Your task to perform on an android device: open chrome privacy settings Image 0: 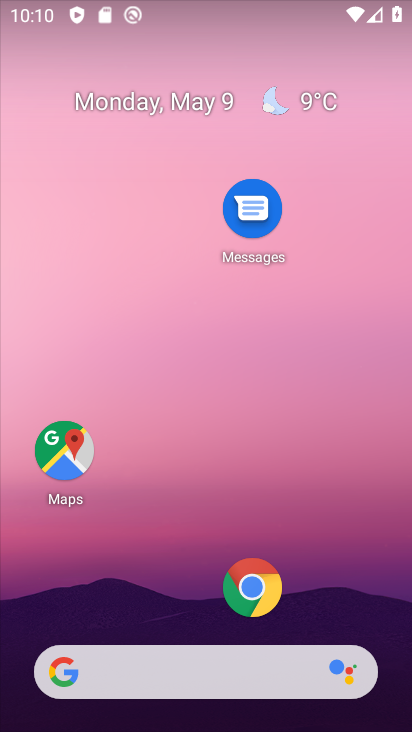
Step 0: click (250, 593)
Your task to perform on an android device: open chrome privacy settings Image 1: 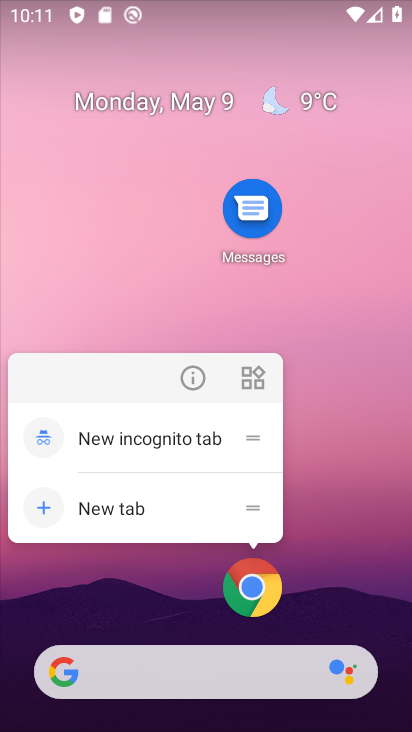
Step 1: click (191, 379)
Your task to perform on an android device: open chrome privacy settings Image 2: 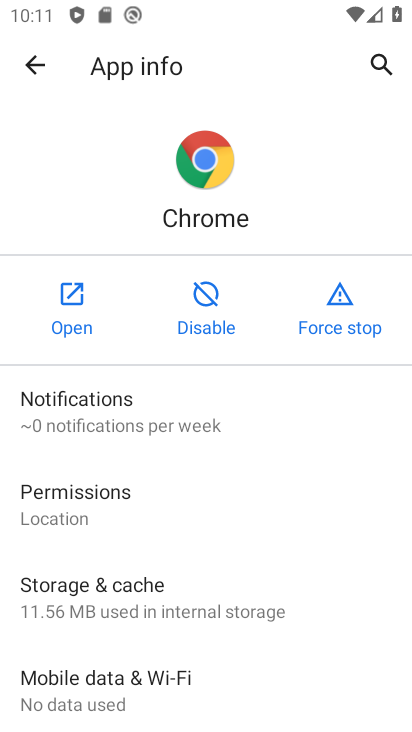
Step 2: click (70, 283)
Your task to perform on an android device: open chrome privacy settings Image 3: 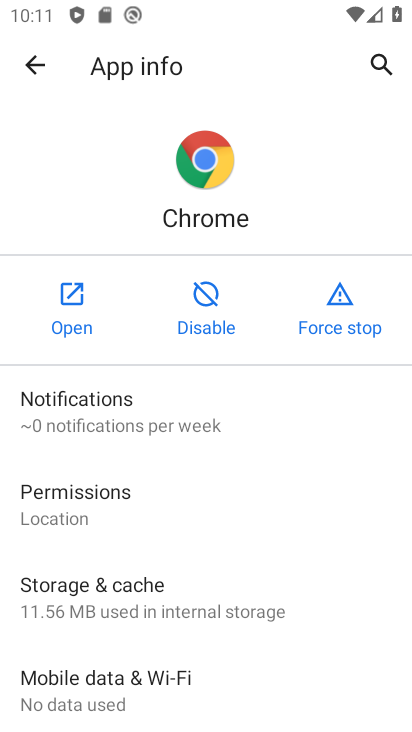
Step 3: click (69, 280)
Your task to perform on an android device: open chrome privacy settings Image 4: 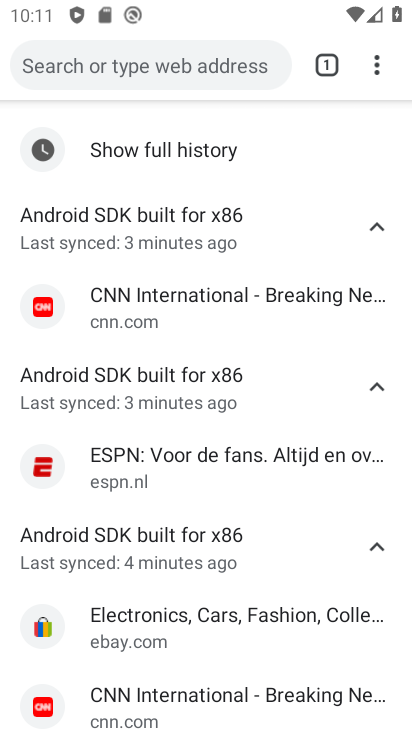
Step 4: click (375, 73)
Your task to perform on an android device: open chrome privacy settings Image 5: 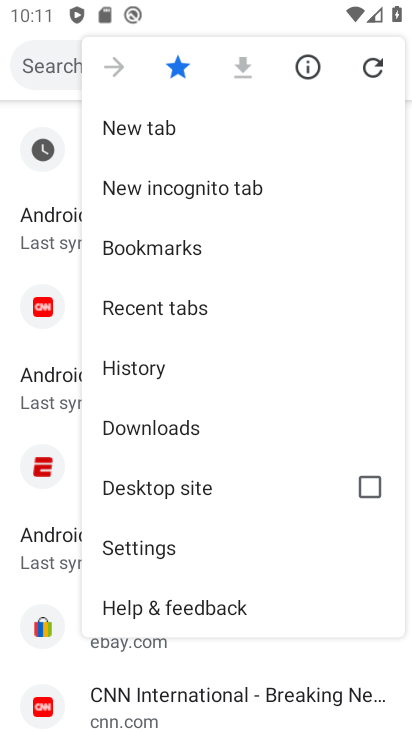
Step 5: drag from (173, 573) to (212, 147)
Your task to perform on an android device: open chrome privacy settings Image 6: 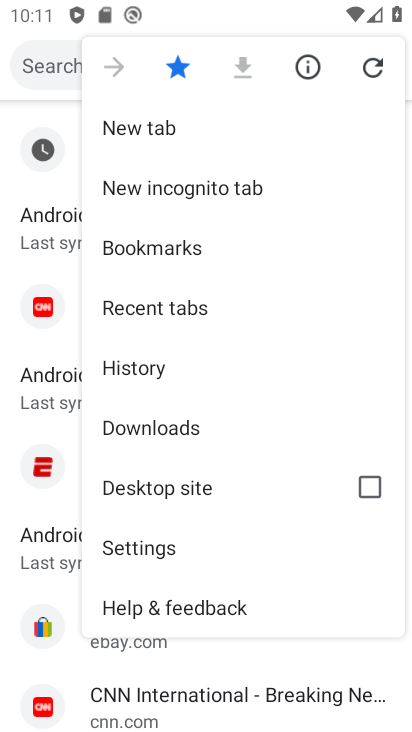
Step 6: click (164, 552)
Your task to perform on an android device: open chrome privacy settings Image 7: 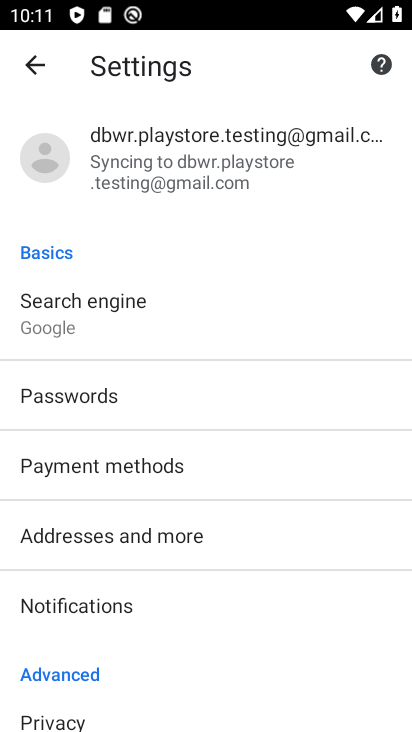
Step 7: drag from (228, 644) to (264, 216)
Your task to perform on an android device: open chrome privacy settings Image 8: 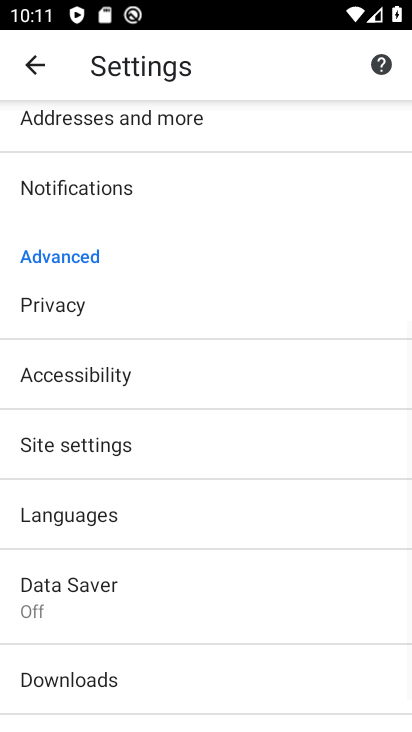
Step 8: click (135, 312)
Your task to perform on an android device: open chrome privacy settings Image 9: 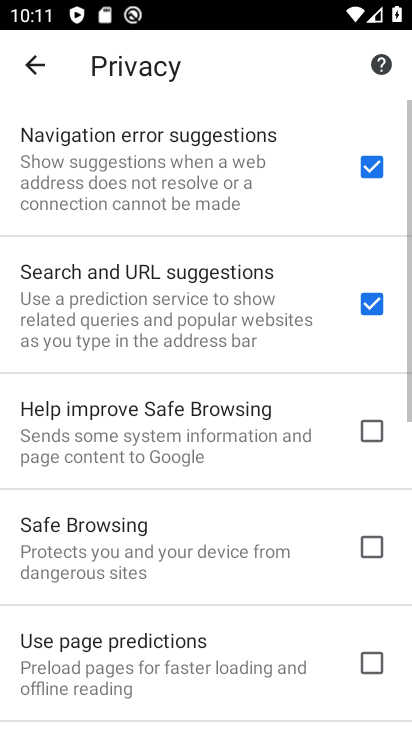
Step 9: drag from (201, 645) to (247, 264)
Your task to perform on an android device: open chrome privacy settings Image 10: 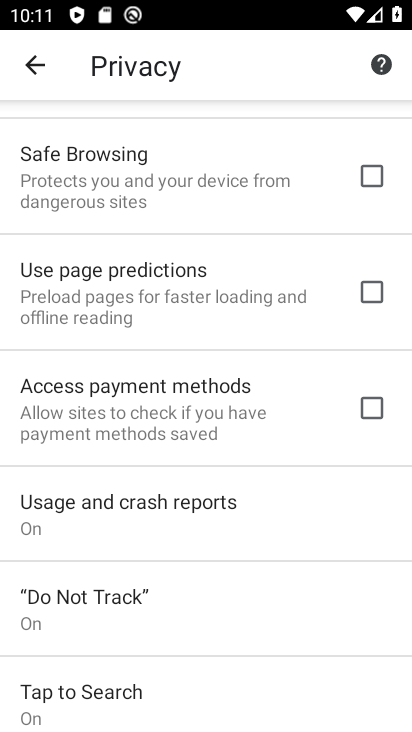
Step 10: drag from (161, 602) to (241, 256)
Your task to perform on an android device: open chrome privacy settings Image 11: 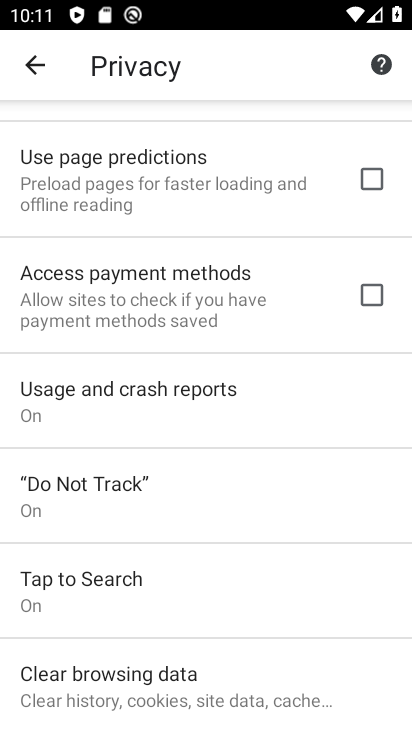
Step 11: drag from (227, 225) to (274, 715)
Your task to perform on an android device: open chrome privacy settings Image 12: 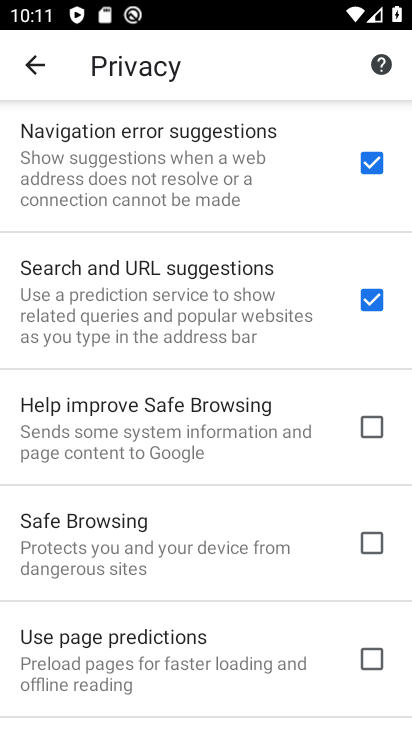
Step 12: click (277, 654)
Your task to perform on an android device: open chrome privacy settings Image 13: 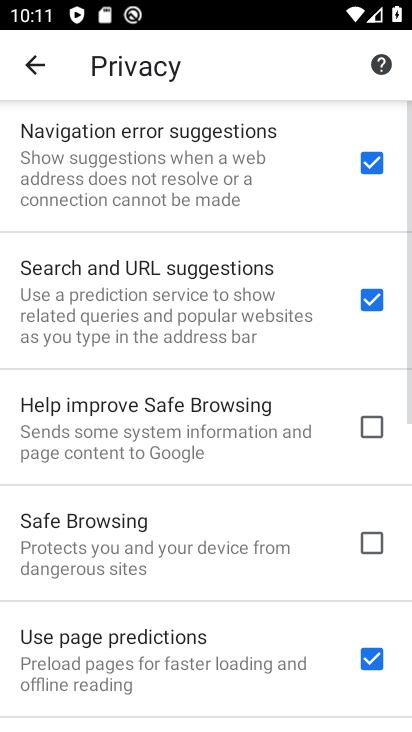
Step 13: task complete